Your task to perform on an android device: toggle sleep mode Image 0: 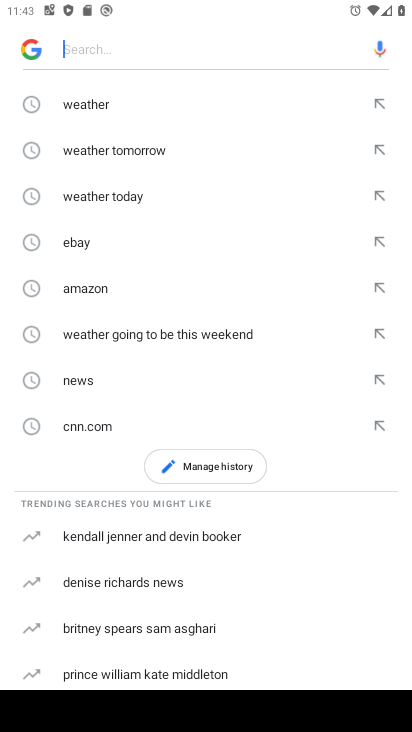
Step 0: press home button
Your task to perform on an android device: toggle sleep mode Image 1: 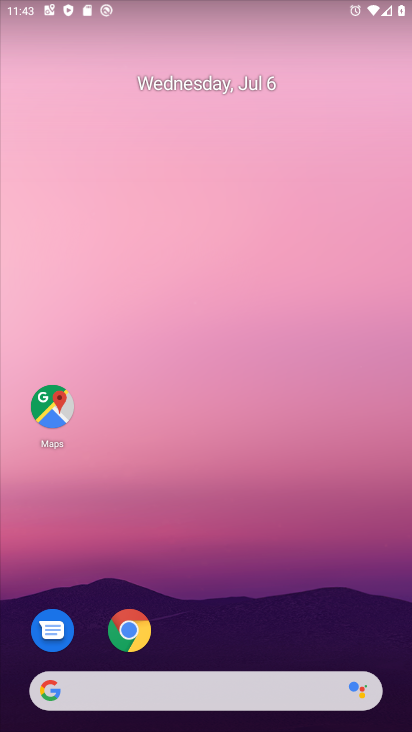
Step 1: drag from (285, 651) to (201, 67)
Your task to perform on an android device: toggle sleep mode Image 2: 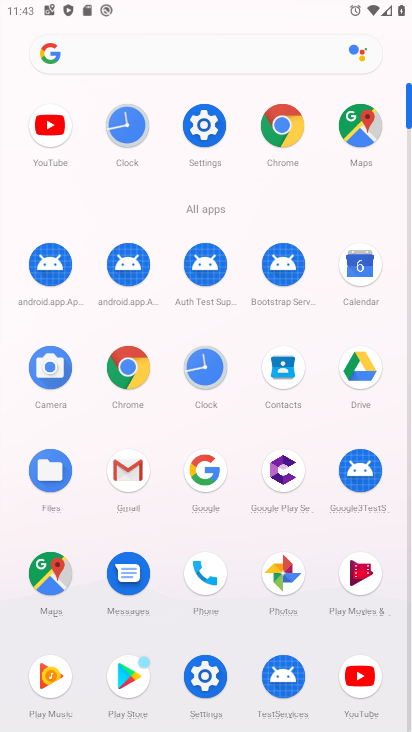
Step 2: click (206, 132)
Your task to perform on an android device: toggle sleep mode Image 3: 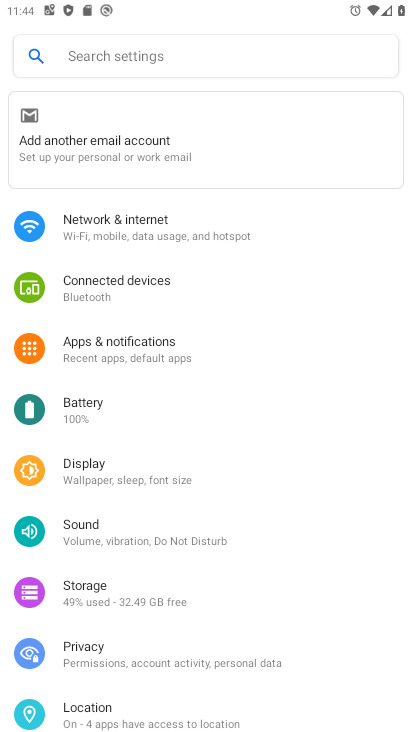
Step 3: click (206, 484)
Your task to perform on an android device: toggle sleep mode Image 4: 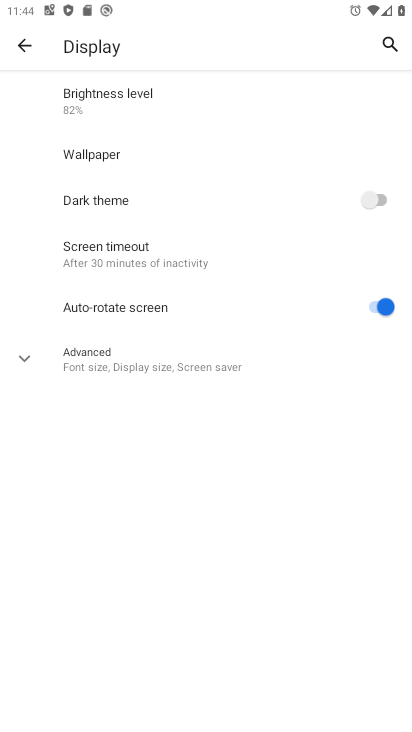
Step 4: click (188, 360)
Your task to perform on an android device: toggle sleep mode Image 5: 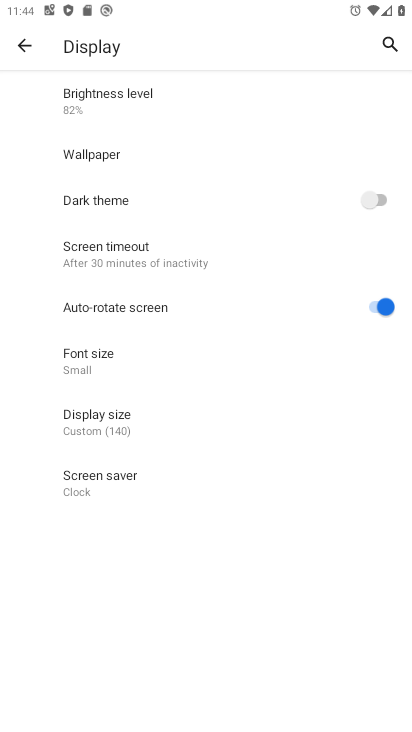
Step 5: task complete